Your task to perform on an android device: see creations saved in the google photos Image 0: 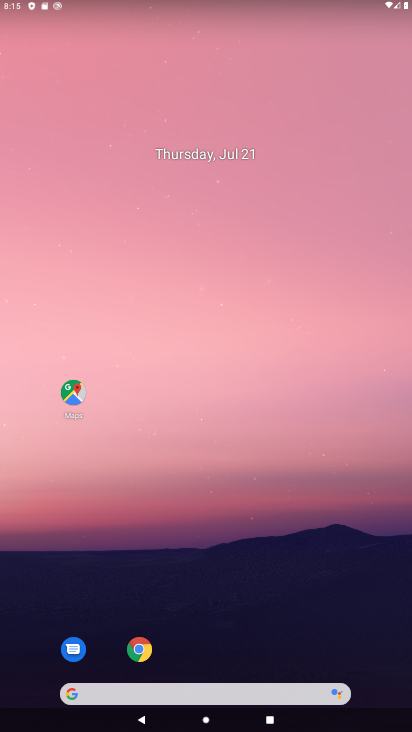
Step 0: drag from (197, 657) to (200, 212)
Your task to perform on an android device: see creations saved in the google photos Image 1: 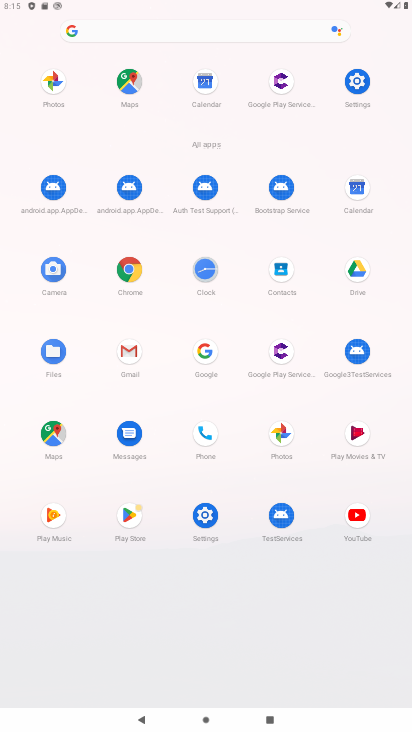
Step 1: click (280, 435)
Your task to perform on an android device: see creations saved in the google photos Image 2: 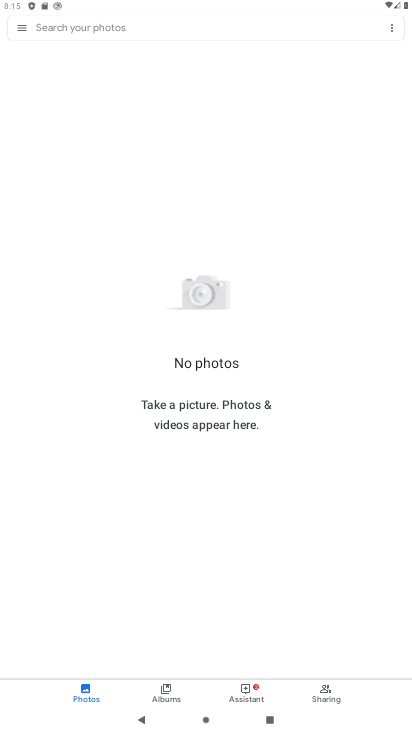
Step 2: click (174, 28)
Your task to perform on an android device: see creations saved in the google photos Image 3: 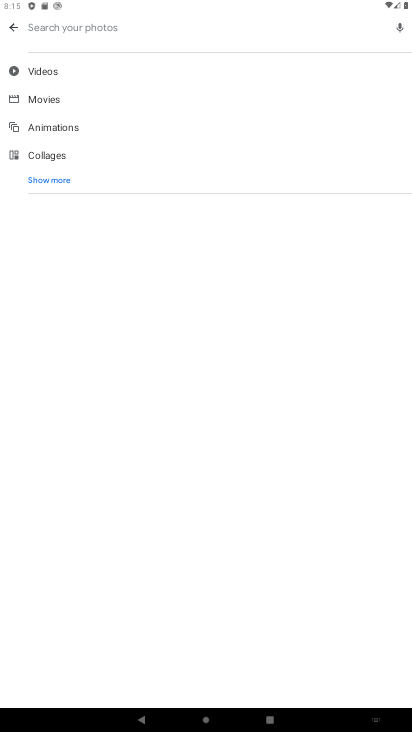
Step 3: click (35, 180)
Your task to perform on an android device: see creations saved in the google photos Image 4: 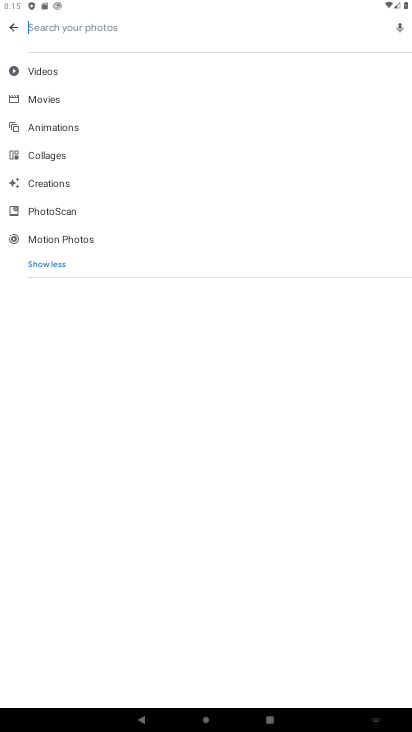
Step 4: click (34, 182)
Your task to perform on an android device: see creations saved in the google photos Image 5: 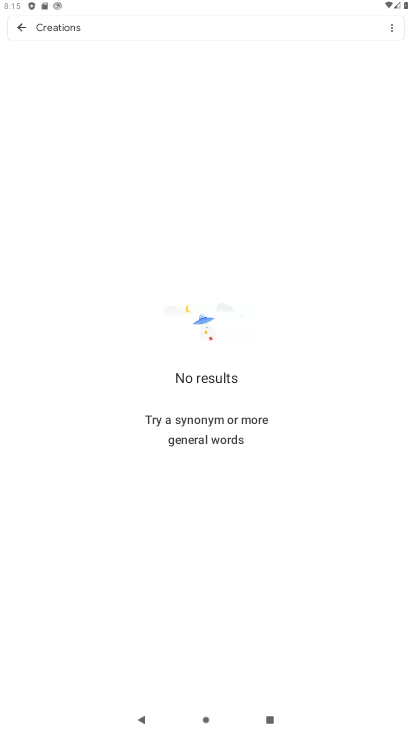
Step 5: task complete